Your task to perform on an android device: Go to calendar. Show me events next week Image 0: 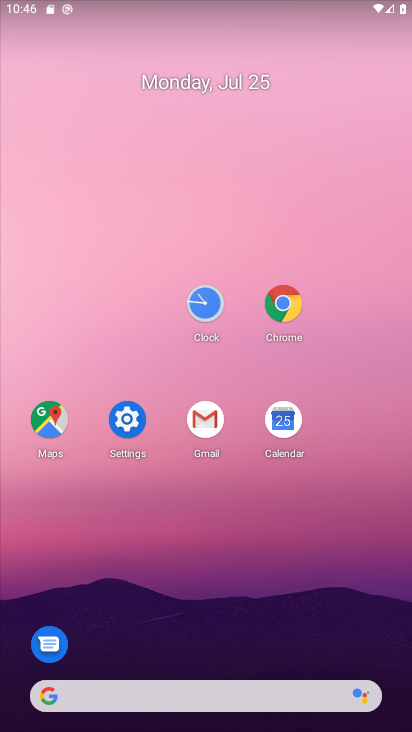
Step 0: click (289, 425)
Your task to perform on an android device: Go to calendar. Show me events next week Image 1: 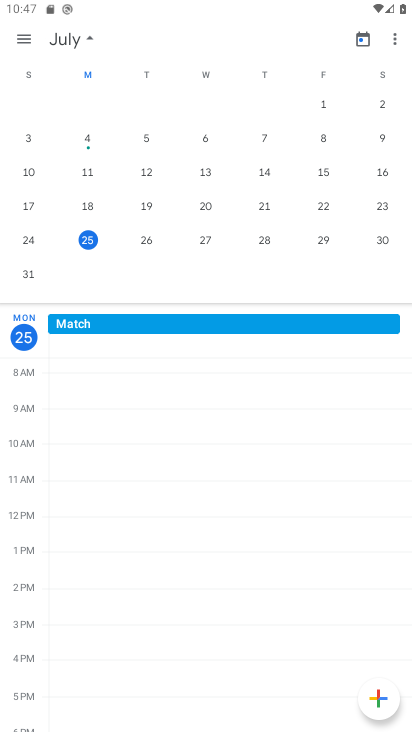
Step 1: click (24, 271)
Your task to perform on an android device: Go to calendar. Show me events next week Image 2: 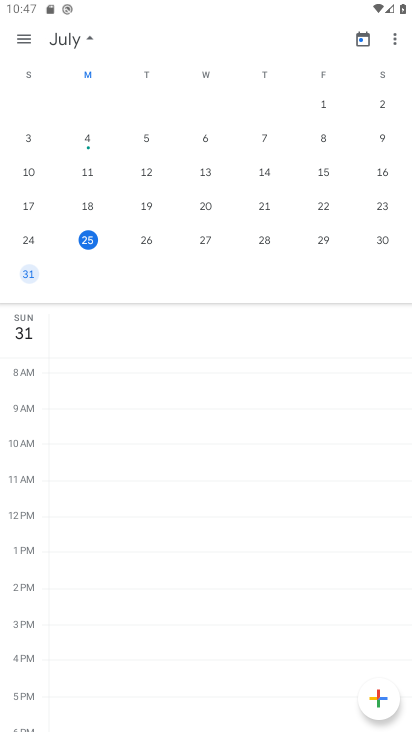
Step 2: click (20, 47)
Your task to perform on an android device: Go to calendar. Show me events next week Image 3: 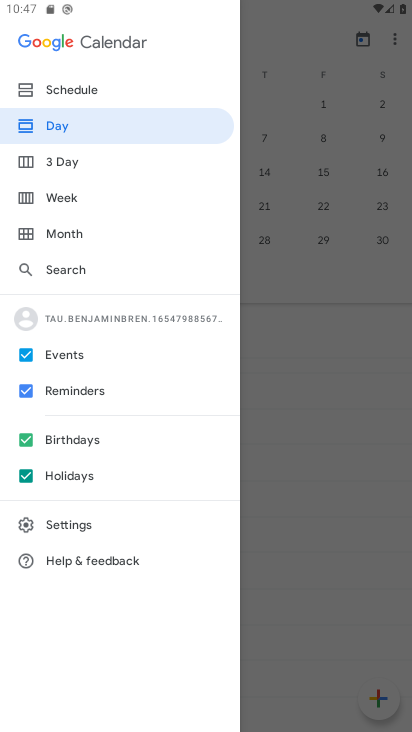
Step 3: click (53, 194)
Your task to perform on an android device: Go to calendar. Show me events next week Image 4: 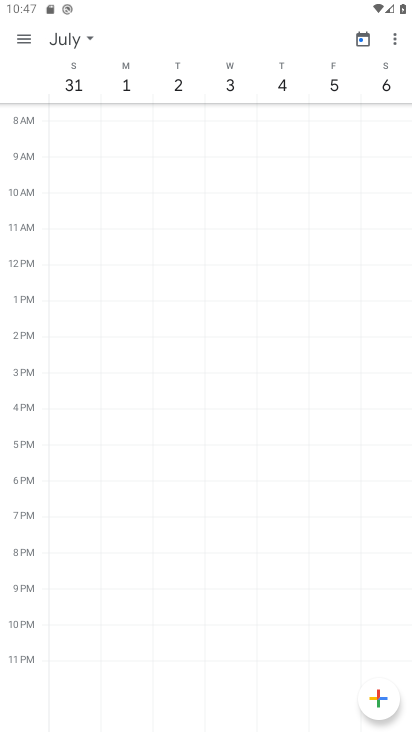
Step 4: click (25, 43)
Your task to perform on an android device: Go to calendar. Show me events next week Image 5: 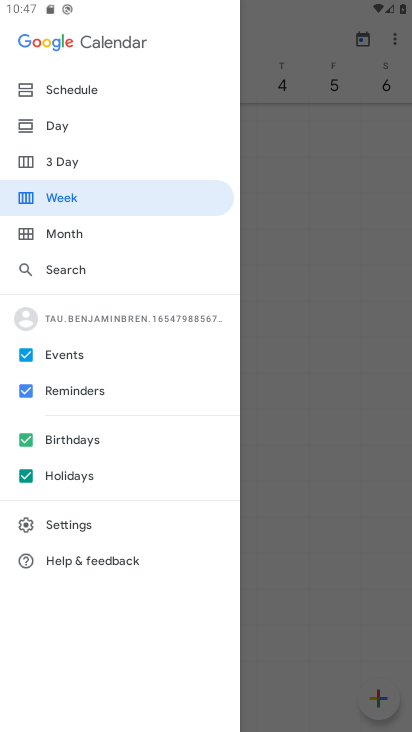
Step 5: click (61, 86)
Your task to perform on an android device: Go to calendar. Show me events next week Image 6: 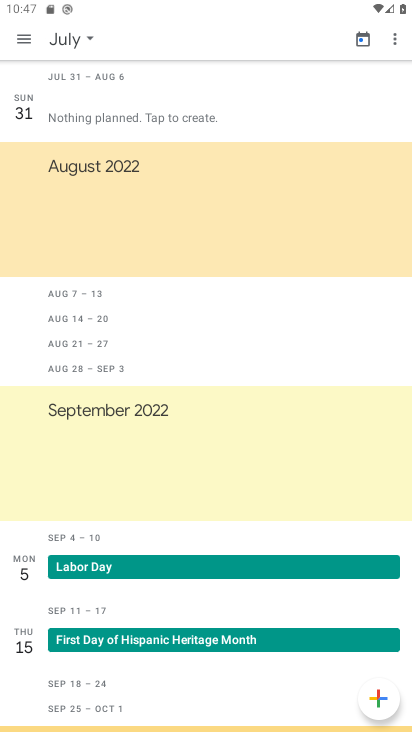
Step 6: task complete